Your task to perform on an android device: Go to Yahoo.com Image 0: 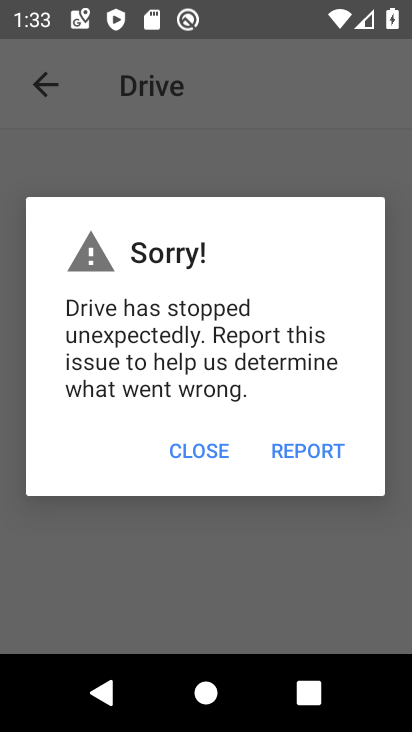
Step 0: drag from (197, 562) to (183, 440)
Your task to perform on an android device: Go to Yahoo.com Image 1: 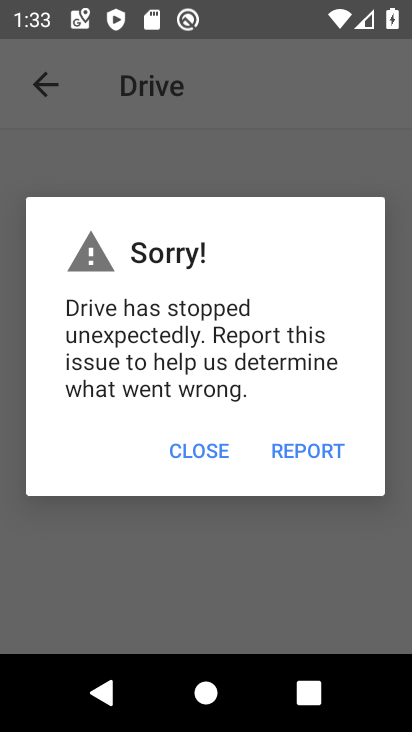
Step 1: press home button
Your task to perform on an android device: Go to Yahoo.com Image 2: 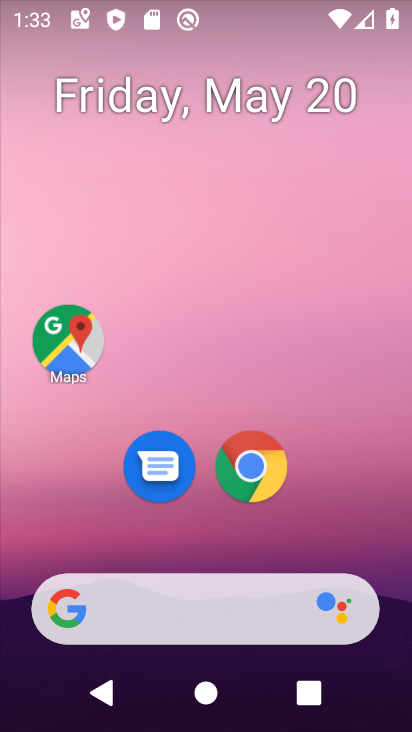
Step 2: click (240, 479)
Your task to perform on an android device: Go to Yahoo.com Image 3: 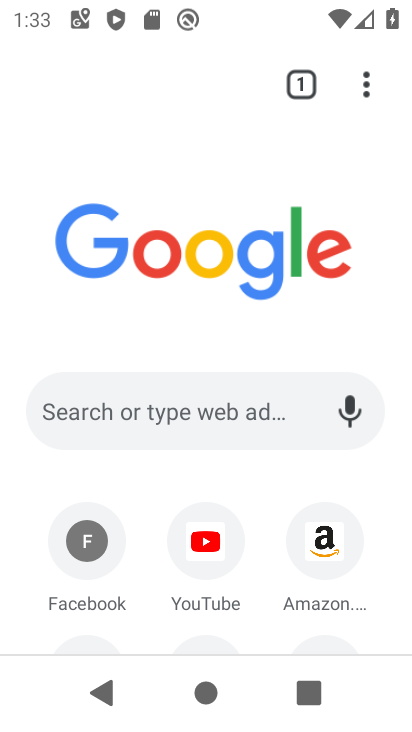
Step 3: drag from (264, 623) to (222, 256)
Your task to perform on an android device: Go to Yahoo.com Image 4: 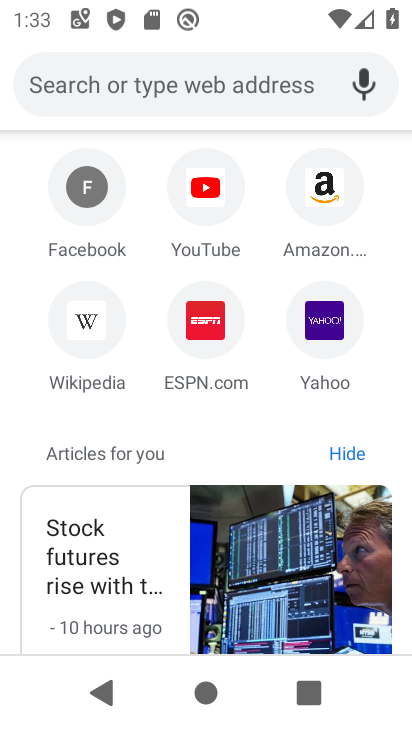
Step 4: click (313, 310)
Your task to perform on an android device: Go to Yahoo.com Image 5: 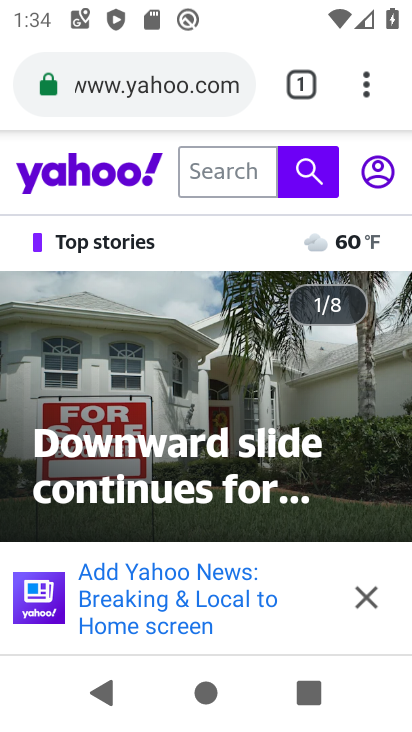
Step 5: task complete